Your task to perform on an android device: Search for Mexican restaurants on Maps Image 0: 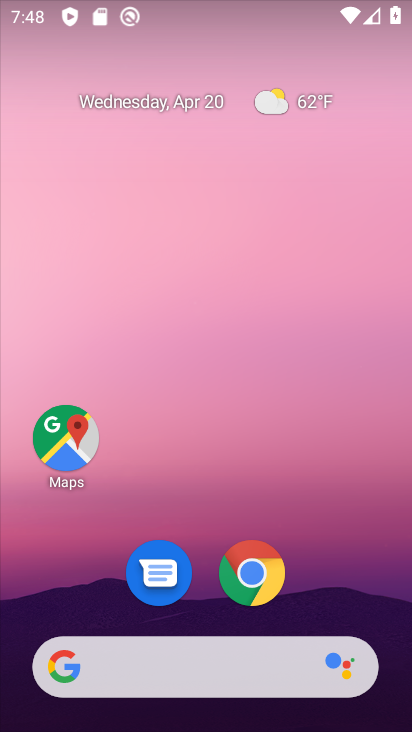
Step 0: click (71, 436)
Your task to perform on an android device: Search for Mexican restaurants on Maps Image 1: 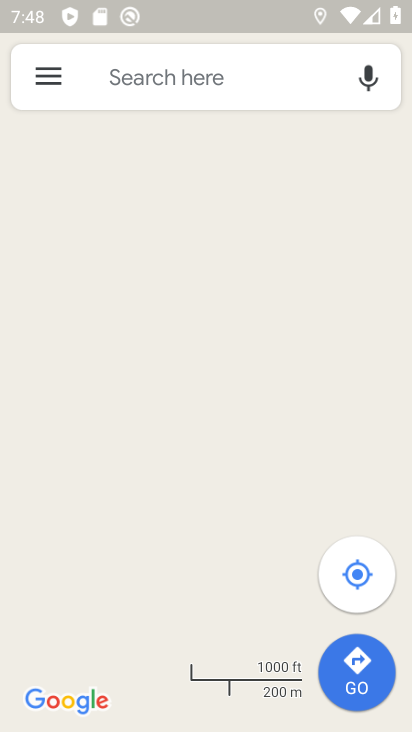
Step 1: click (222, 75)
Your task to perform on an android device: Search for Mexican restaurants on Maps Image 2: 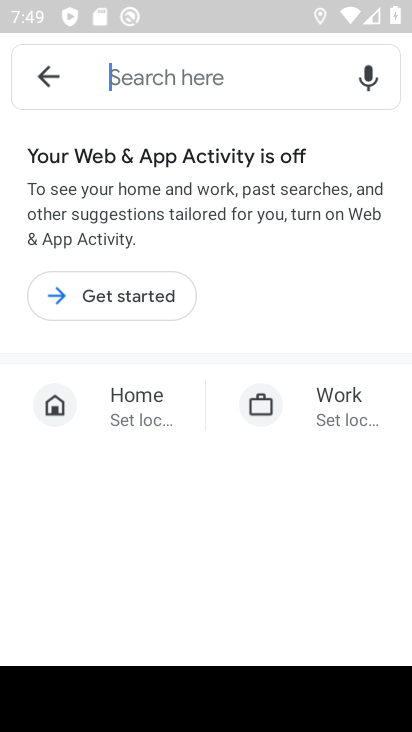
Step 2: type "mexican restaurants"
Your task to perform on an android device: Search for Mexican restaurants on Maps Image 3: 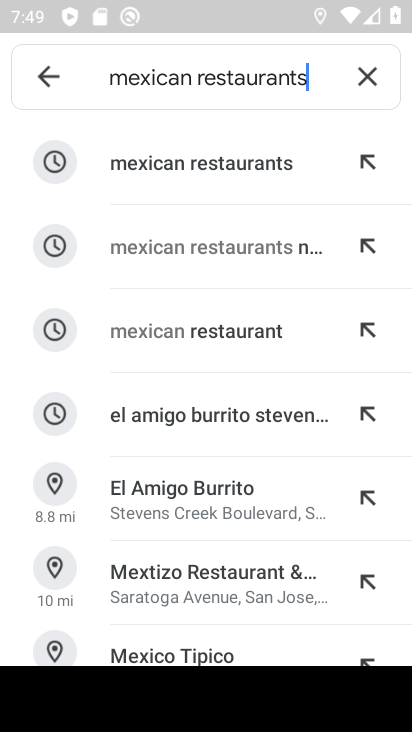
Step 3: task complete